Your task to perform on an android device: install app "Google Maps" Image 0: 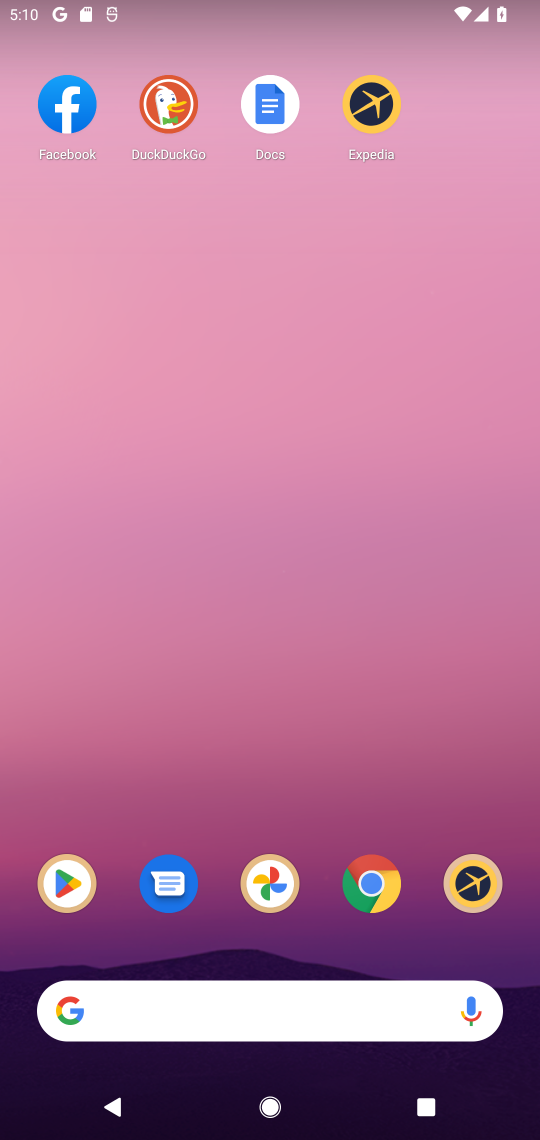
Step 0: drag from (295, 952) to (295, 110)
Your task to perform on an android device: install app "Google Maps" Image 1: 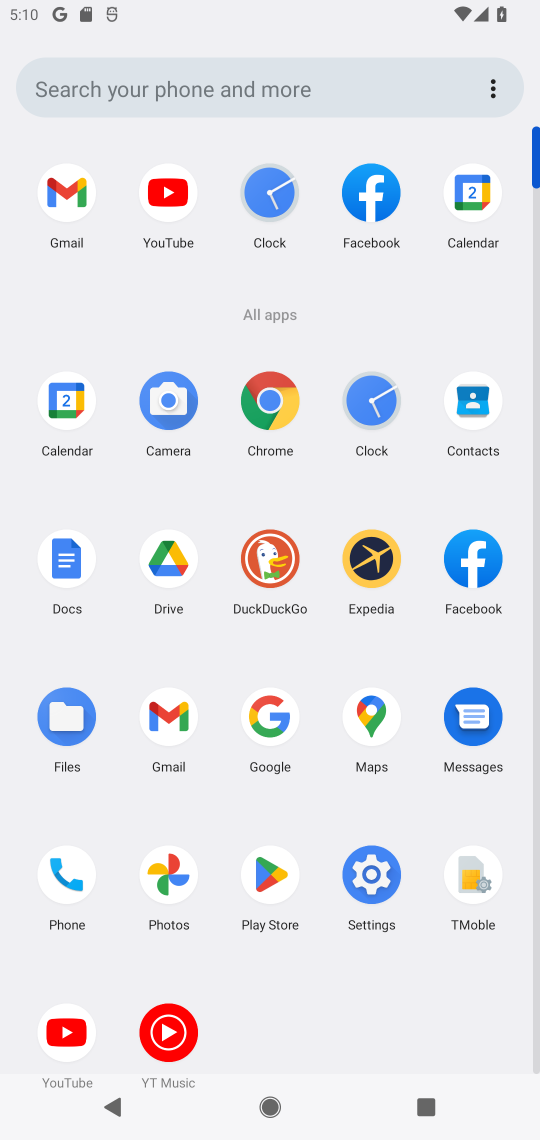
Step 1: click (364, 725)
Your task to perform on an android device: install app "Google Maps" Image 2: 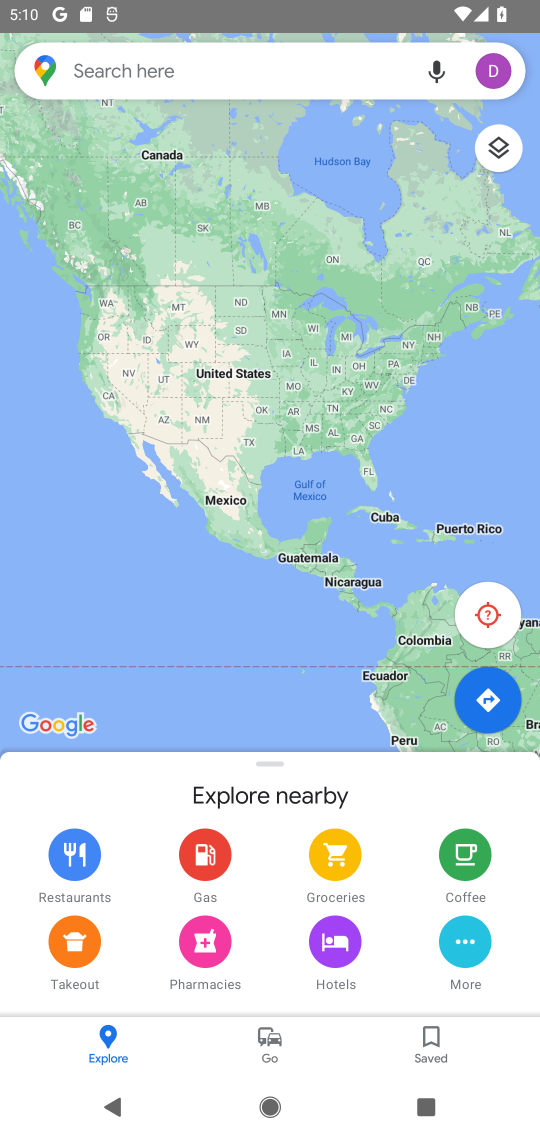
Step 2: press home button
Your task to perform on an android device: install app "Google Maps" Image 3: 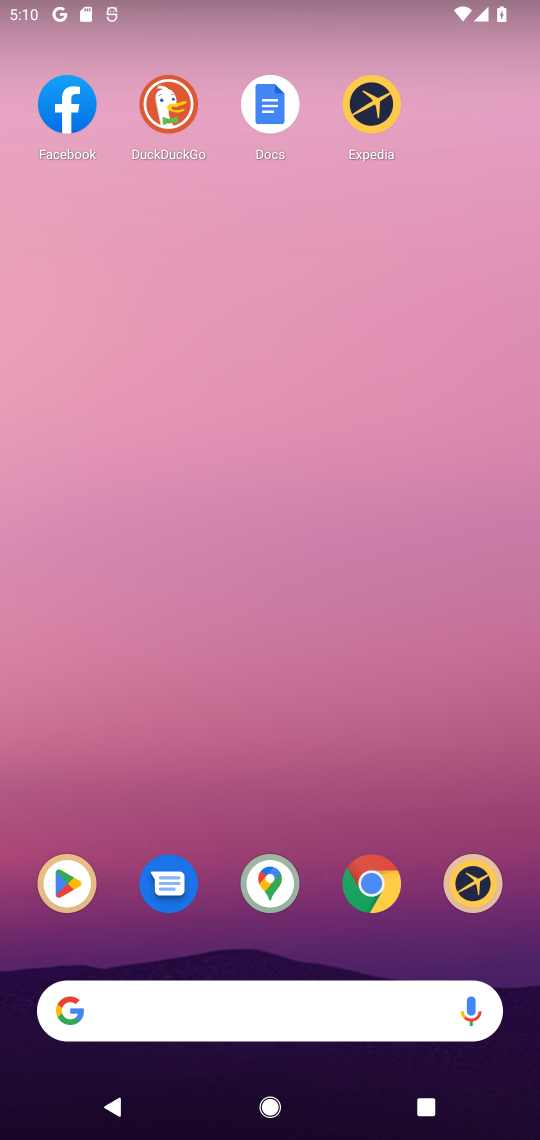
Step 3: drag from (234, 949) to (112, 113)
Your task to perform on an android device: install app "Google Maps" Image 4: 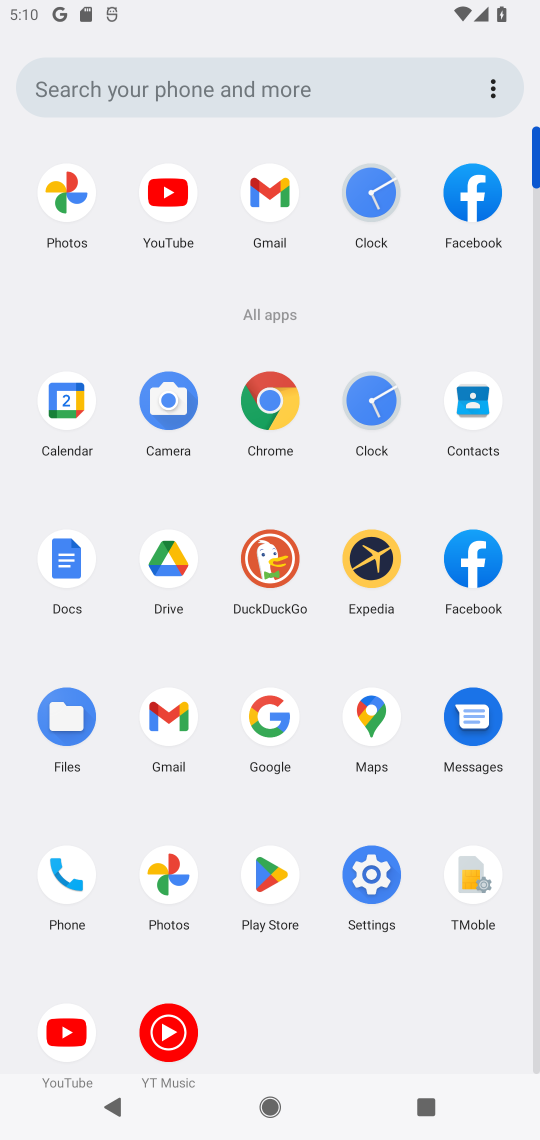
Step 4: click (250, 880)
Your task to perform on an android device: install app "Google Maps" Image 5: 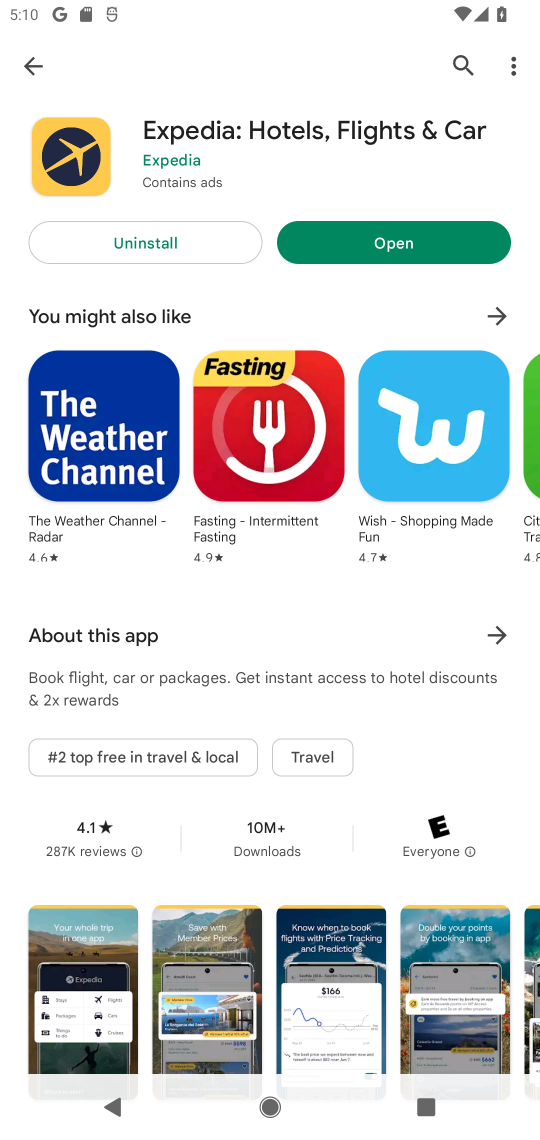
Step 5: click (46, 77)
Your task to perform on an android device: install app "Google Maps" Image 6: 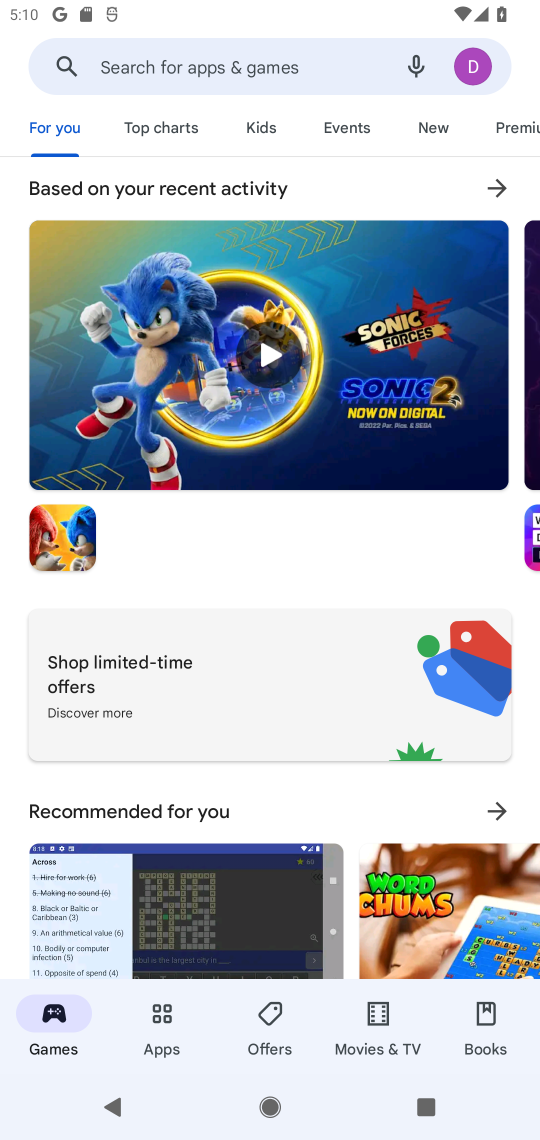
Step 6: click (141, 70)
Your task to perform on an android device: install app "Google Maps" Image 7: 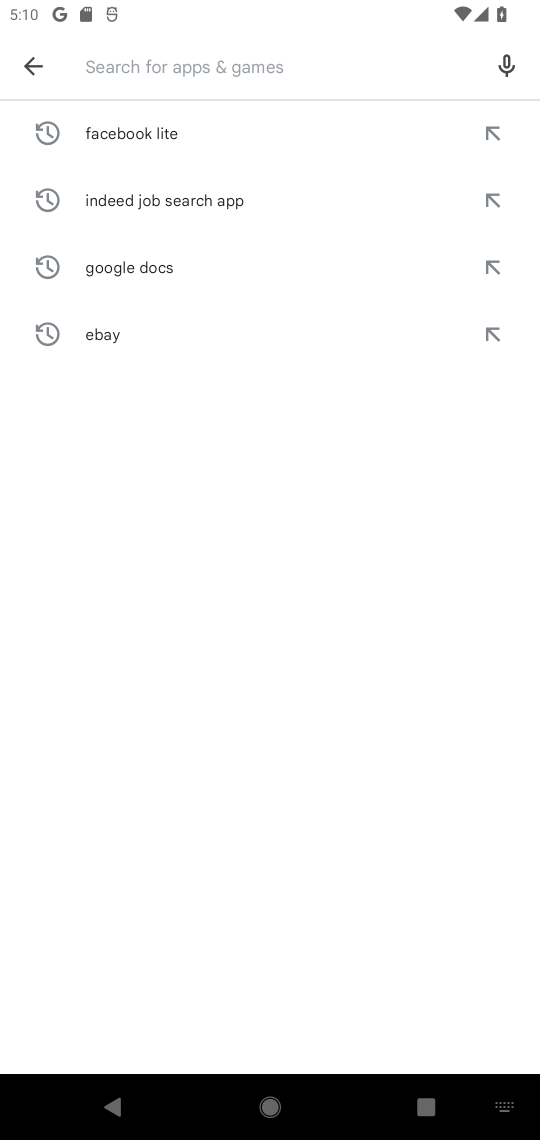
Step 7: type "Google Map"
Your task to perform on an android device: install app "Google Maps" Image 8: 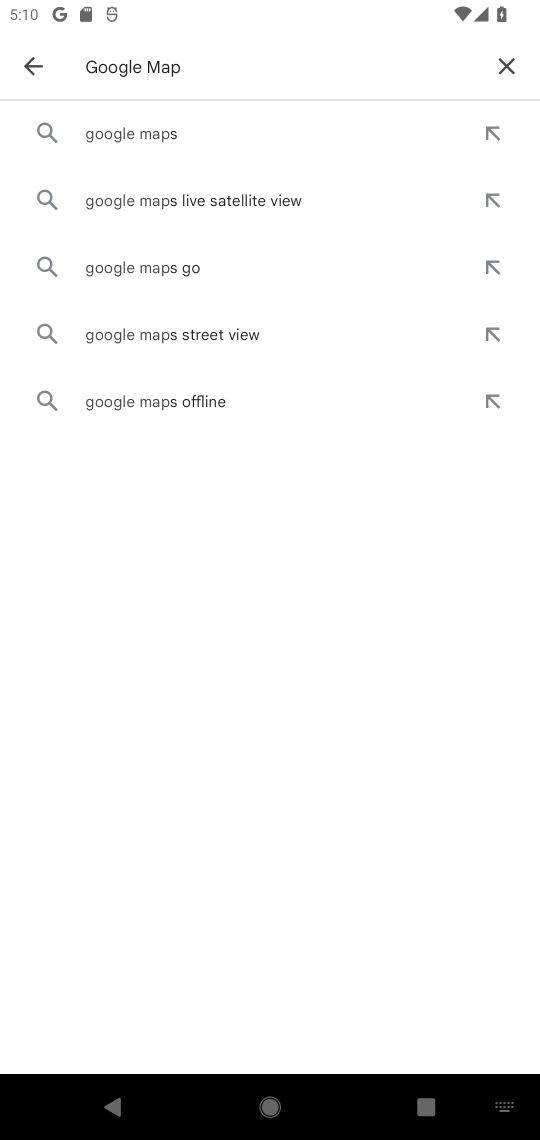
Step 8: click (166, 138)
Your task to perform on an android device: install app "Google Maps" Image 9: 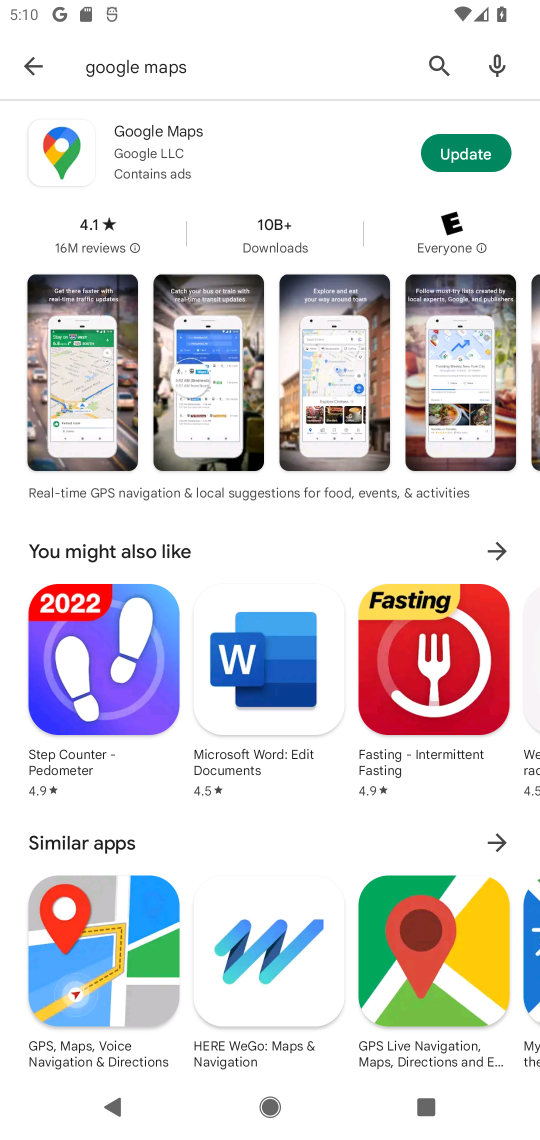
Step 9: click (436, 153)
Your task to perform on an android device: install app "Google Maps" Image 10: 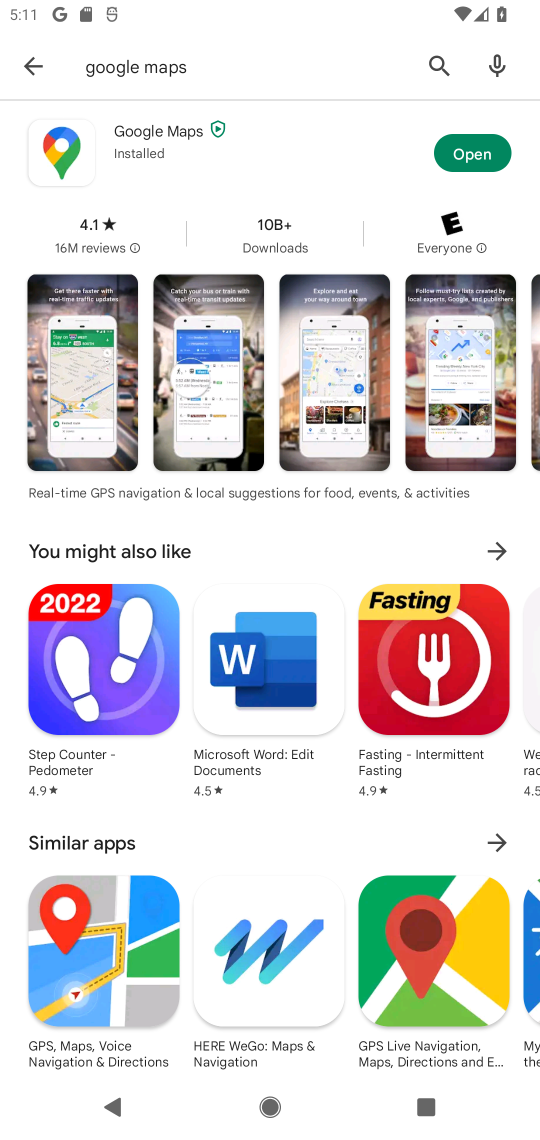
Step 10: click (476, 144)
Your task to perform on an android device: install app "Google Maps" Image 11: 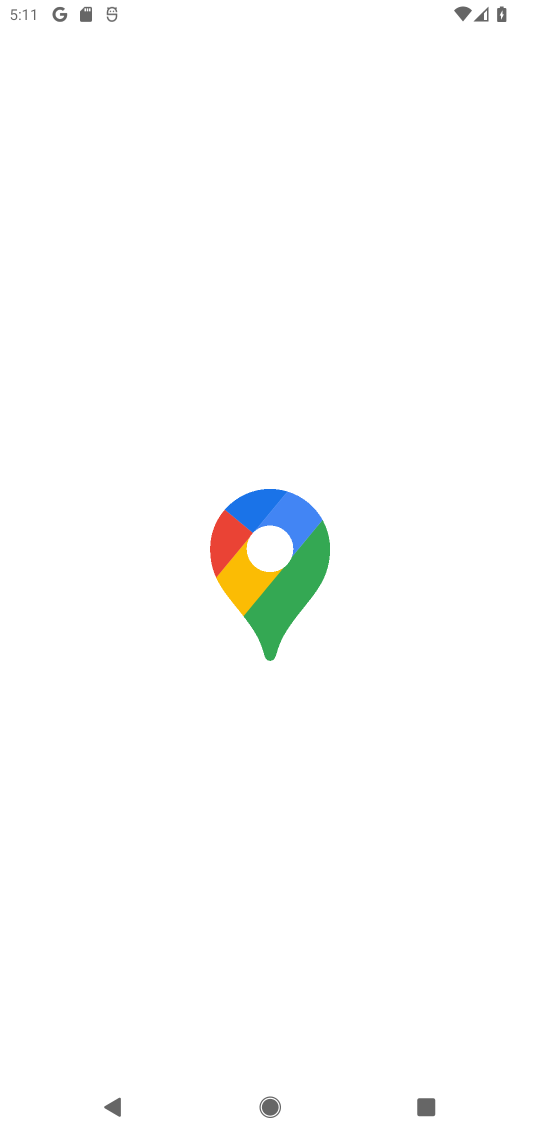
Step 11: task complete